Your task to perform on an android device: turn on airplane mode Image 0: 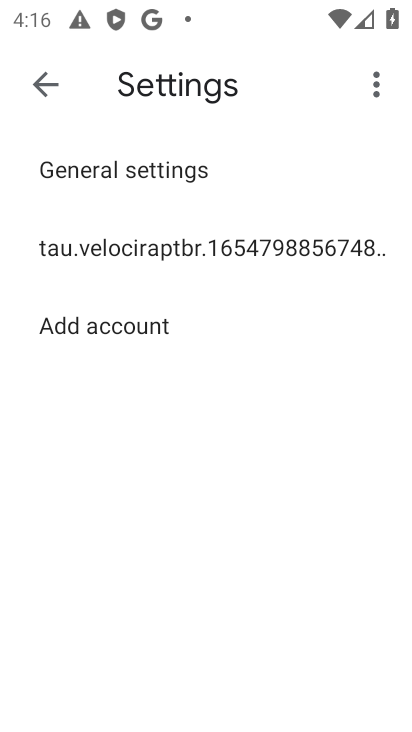
Step 0: press home button
Your task to perform on an android device: turn on airplane mode Image 1: 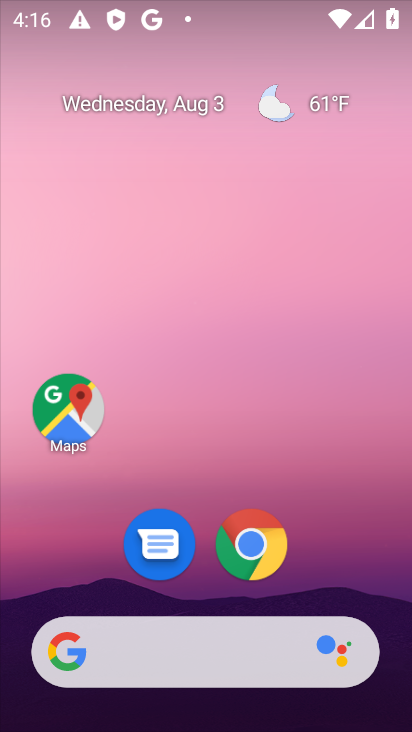
Step 1: drag from (314, 570) to (322, 81)
Your task to perform on an android device: turn on airplane mode Image 2: 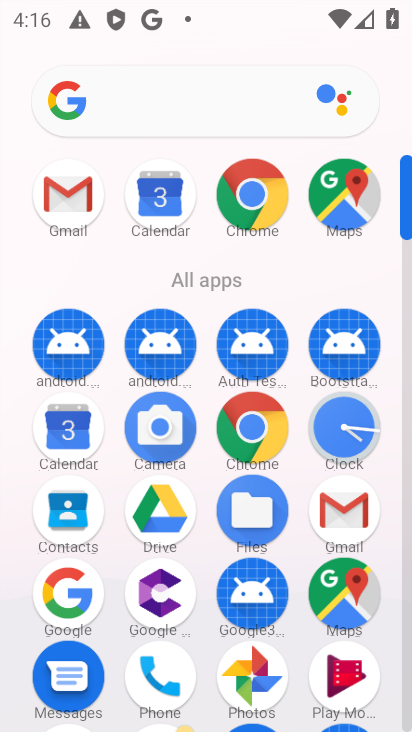
Step 2: drag from (231, 2) to (201, 519)
Your task to perform on an android device: turn on airplane mode Image 3: 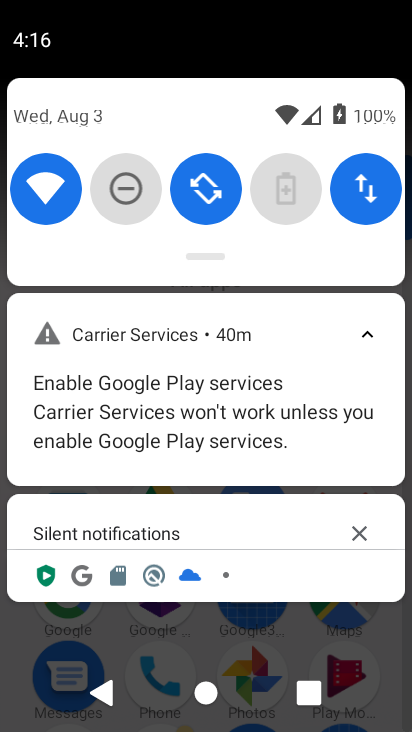
Step 3: drag from (301, 236) to (289, 680)
Your task to perform on an android device: turn on airplane mode Image 4: 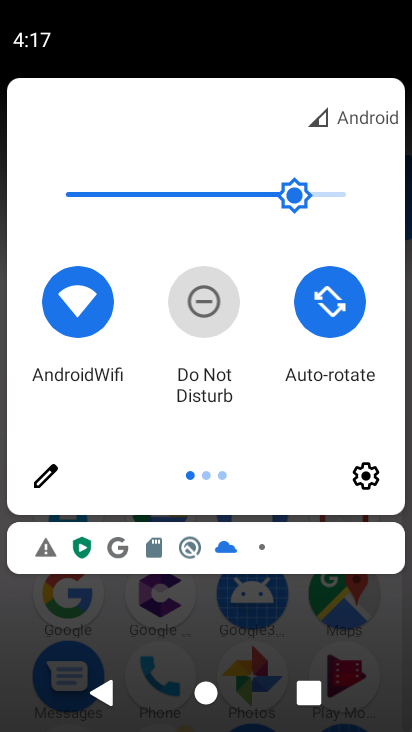
Step 4: click (293, 698)
Your task to perform on an android device: turn on airplane mode Image 5: 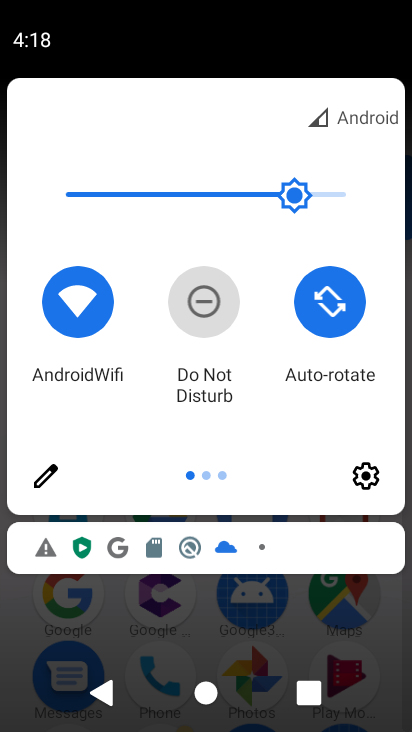
Step 5: drag from (366, 344) to (29, 308)
Your task to perform on an android device: turn on airplane mode Image 6: 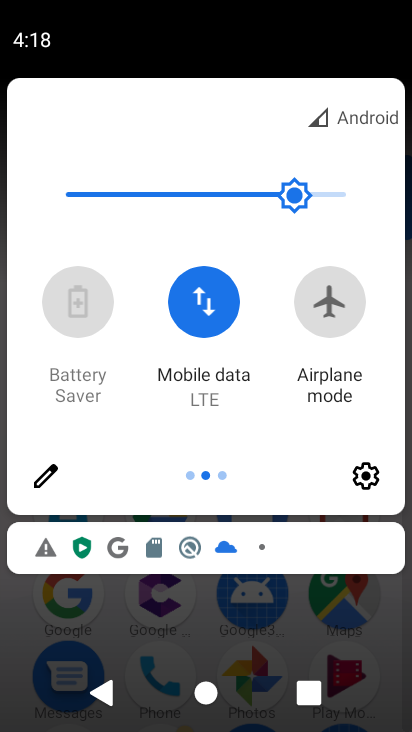
Step 6: click (329, 294)
Your task to perform on an android device: turn on airplane mode Image 7: 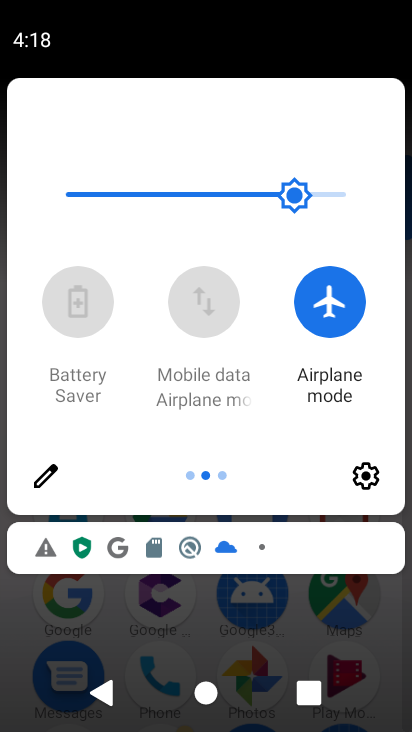
Step 7: task complete